Your task to perform on an android device: change the clock display to analog Image 0: 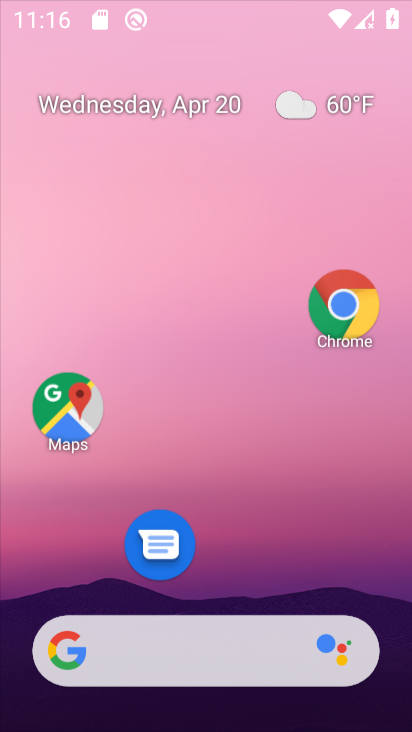
Step 0: drag from (375, 201) to (377, 162)
Your task to perform on an android device: change the clock display to analog Image 1: 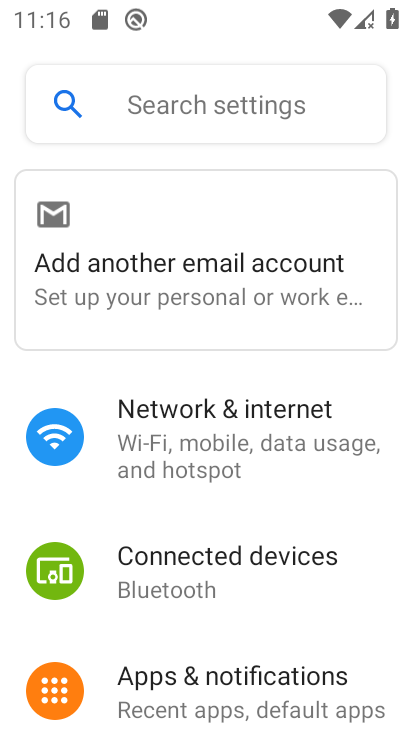
Step 1: press home button
Your task to perform on an android device: change the clock display to analog Image 2: 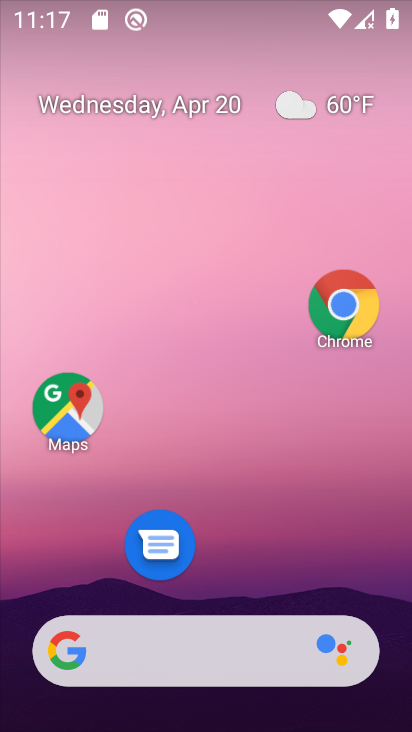
Step 2: drag from (263, 587) to (344, 109)
Your task to perform on an android device: change the clock display to analog Image 3: 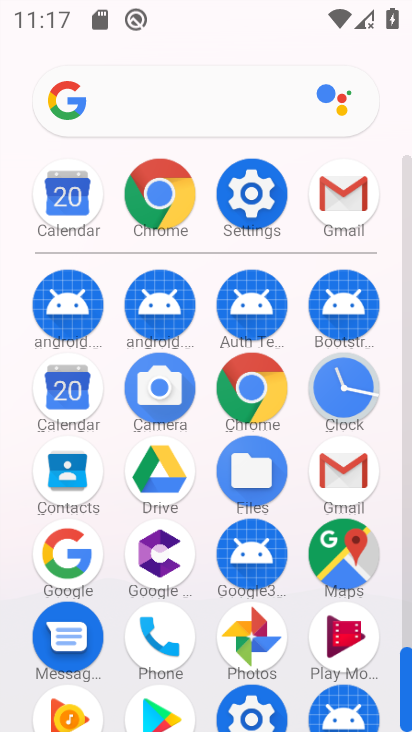
Step 3: click (347, 398)
Your task to perform on an android device: change the clock display to analog Image 4: 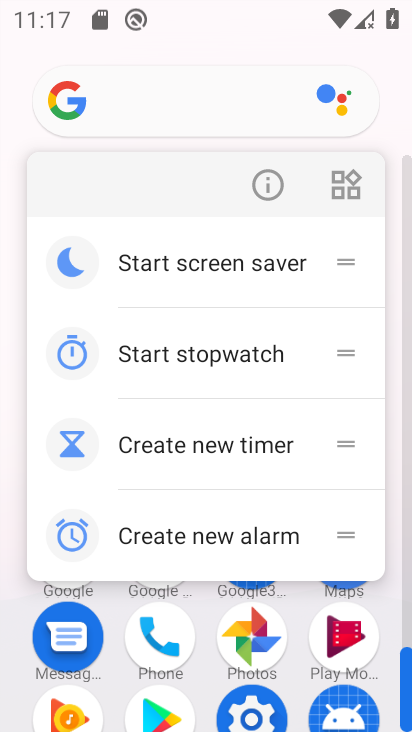
Step 4: click (408, 624)
Your task to perform on an android device: change the clock display to analog Image 5: 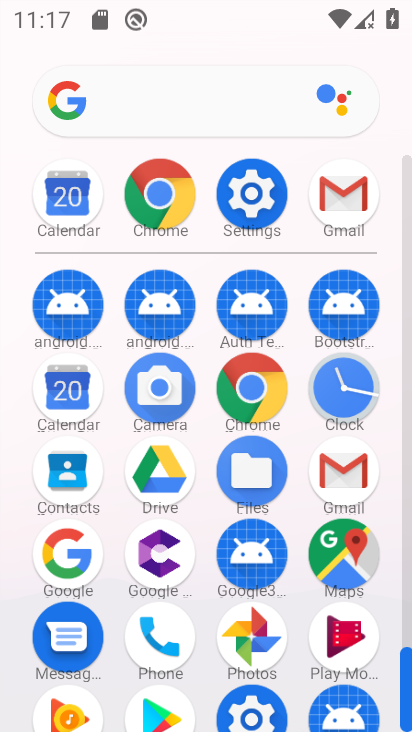
Step 5: click (350, 398)
Your task to perform on an android device: change the clock display to analog Image 6: 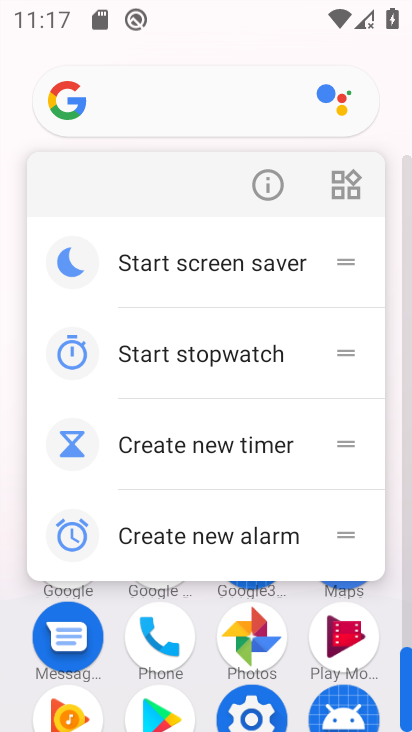
Step 6: click (390, 473)
Your task to perform on an android device: change the clock display to analog Image 7: 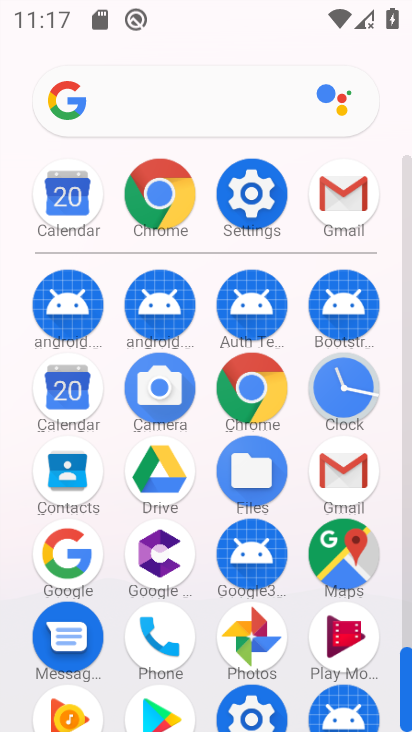
Step 7: click (341, 394)
Your task to perform on an android device: change the clock display to analog Image 8: 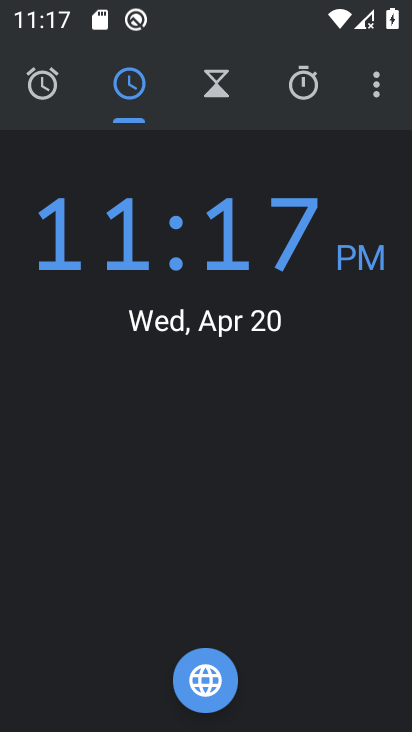
Step 8: click (391, 96)
Your task to perform on an android device: change the clock display to analog Image 9: 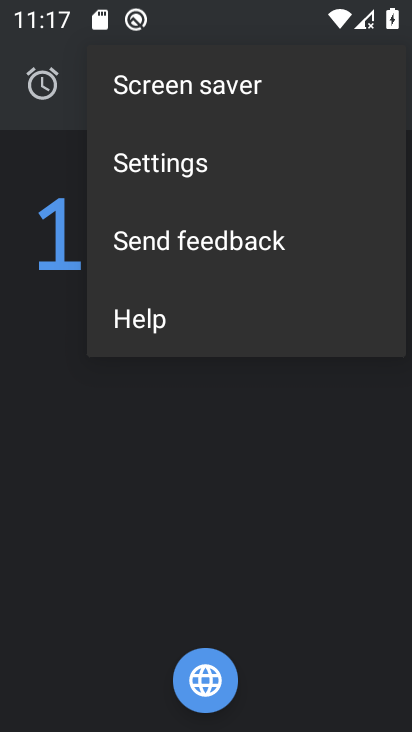
Step 9: click (178, 178)
Your task to perform on an android device: change the clock display to analog Image 10: 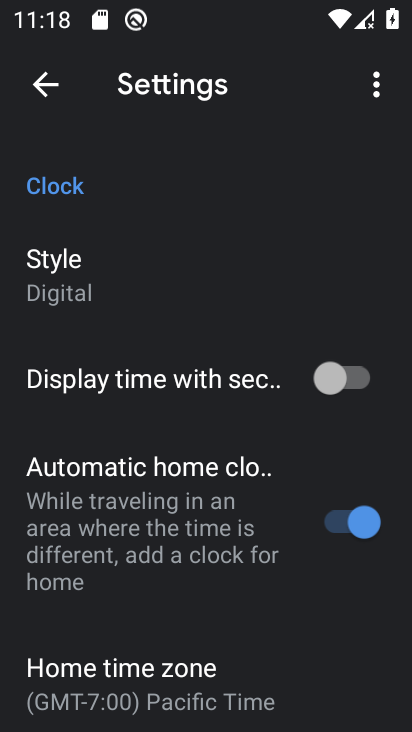
Step 10: click (119, 300)
Your task to perform on an android device: change the clock display to analog Image 11: 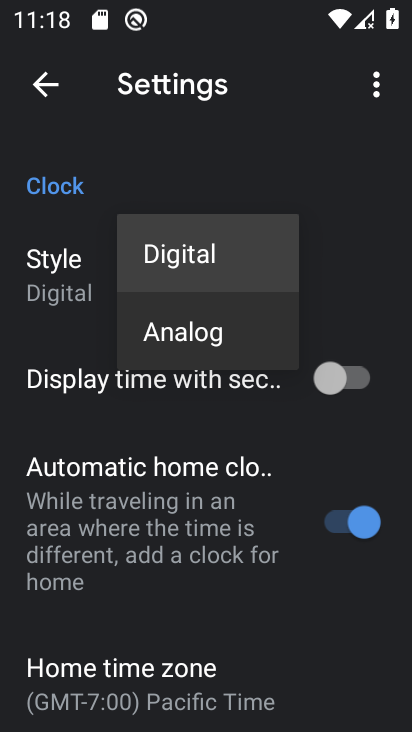
Step 11: click (176, 345)
Your task to perform on an android device: change the clock display to analog Image 12: 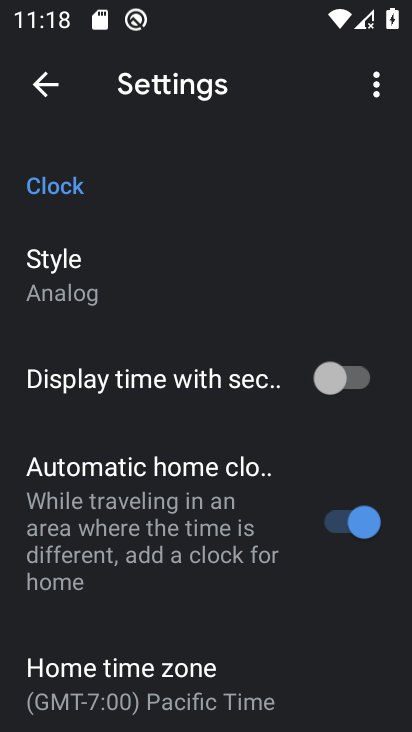
Step 12: task complete